Your task to perform on an android device: Open CNN.com Image 0: 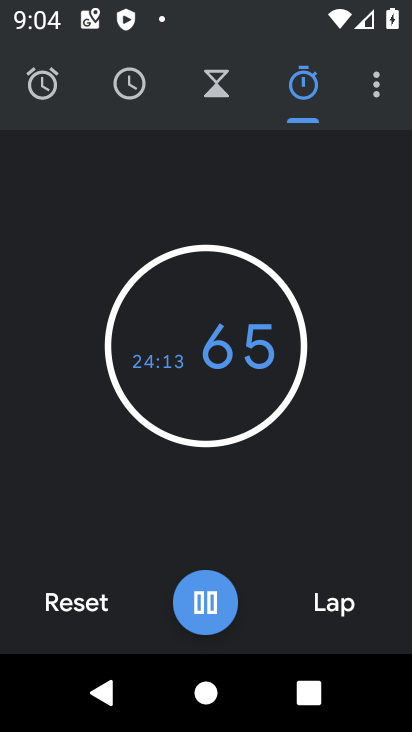
Step 0: press home button
Your task to perform on an android device: Open CNN.com Image 1: 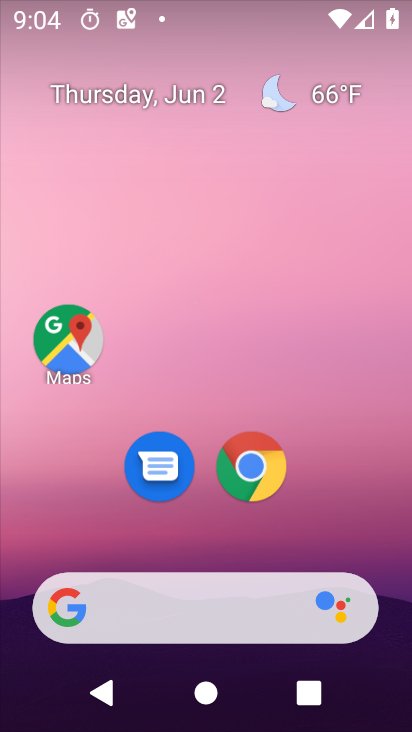
Step 1: click (236, 472)
Your task to perform on an android device: Open CNN.com Image 2: 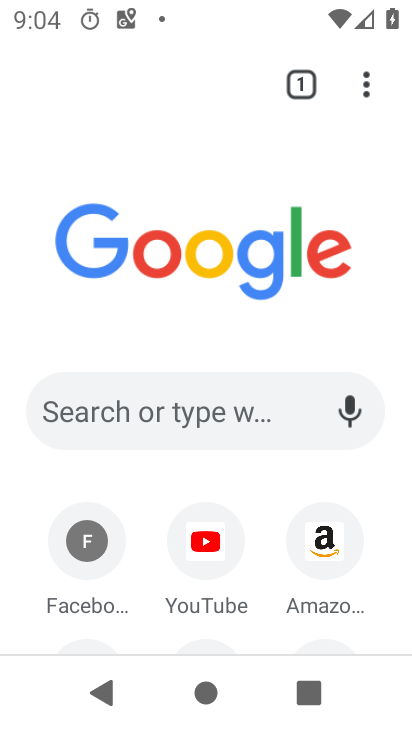
Step 2: drag from (14, 454) to (197, 115)
Your task to perform on an android device: Open CNN.com Image 3: 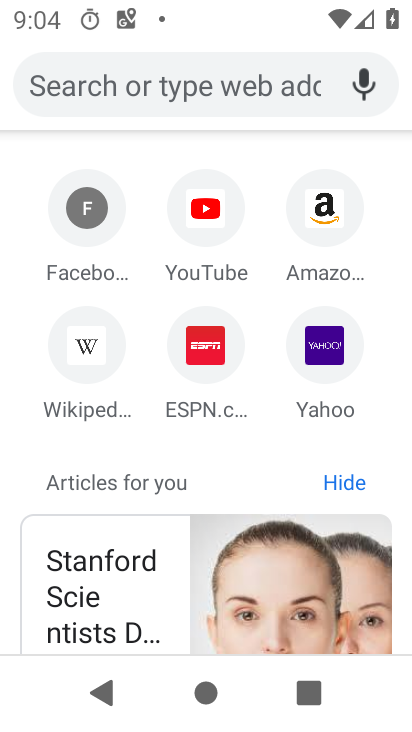
Step 3: click (153, 91)
Your task to perform on an android device: Open CNN.com Image 4: 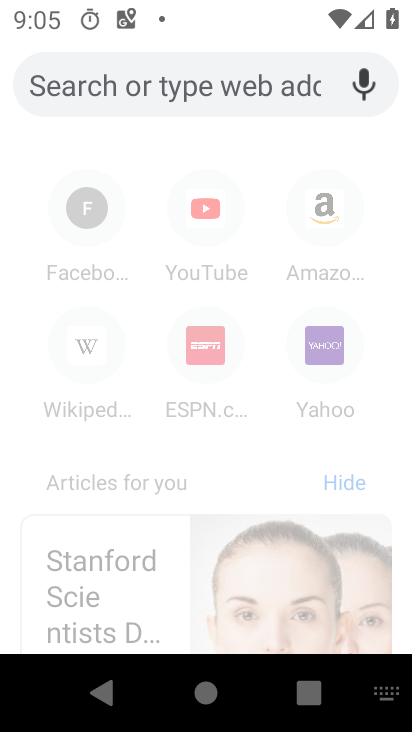
Step 4: type "CNN.com"
Your task to perform on an android device: Open CNN.com Image 5: 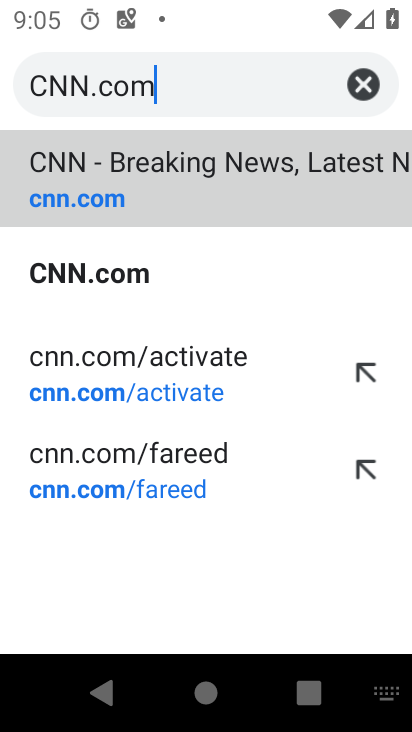
Step 5: type ""
Your task to perform on an android device: Open CNN.com Image 6: 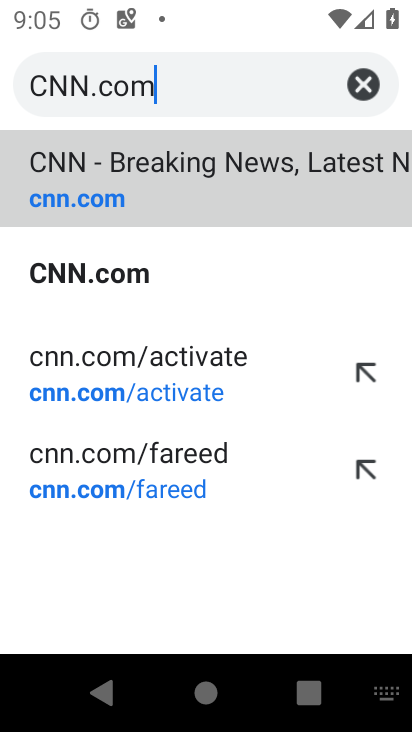
Step 6: click (88, 192)
Your task to perform on an android device: Open CNN.com Image 7: 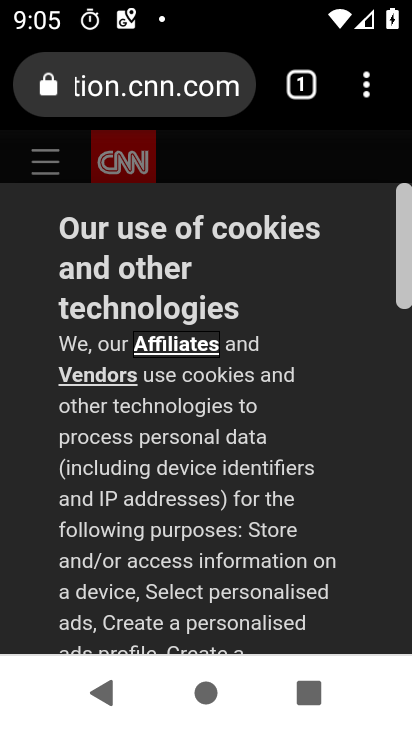
Step 7: task complete